Your task to perform on an android device: Open eBay Image 0: 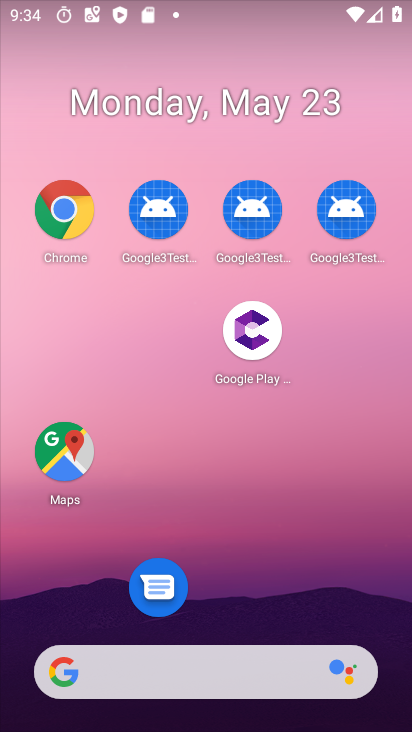
Step 0: click (71, 207)
Your task to perform on an android device: Open eBay Image 1: 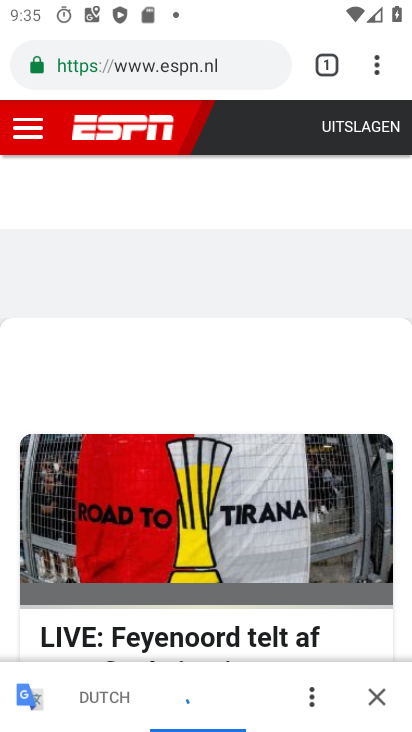
Step 1: click (331, 53)
Your task to perform on an android device: Open eBay Image 2: 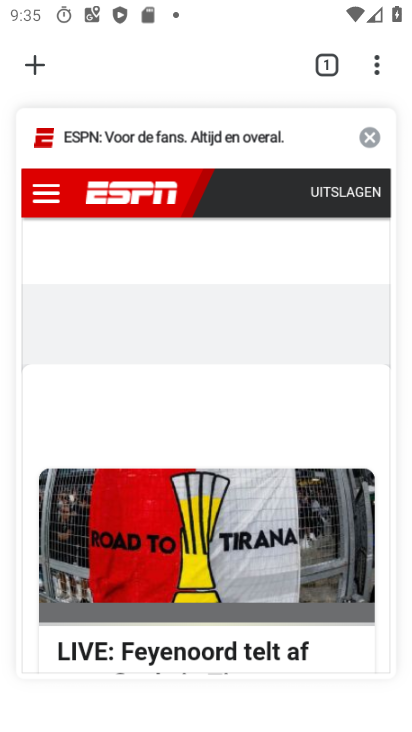
Step 2: click (39, 54)
Your task to perform on an android device: Open eBay Image 3: 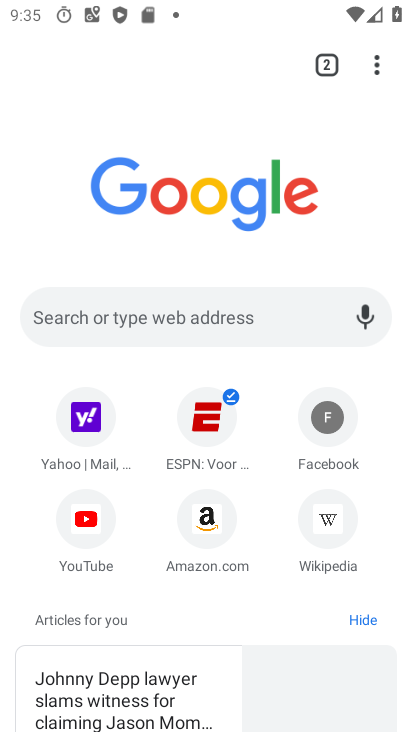
Step 3: click (174, 323)
Your task to perform on an android device: Open eBay Image 4: 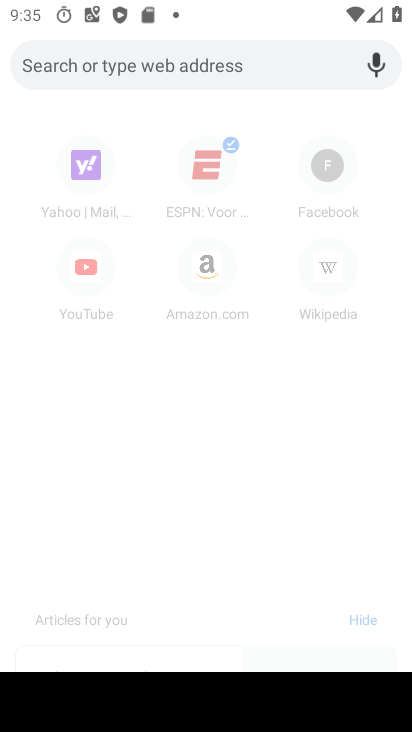
Step 4: type "eBay"
Your task to perform on an android device: Open eBay Image 5: 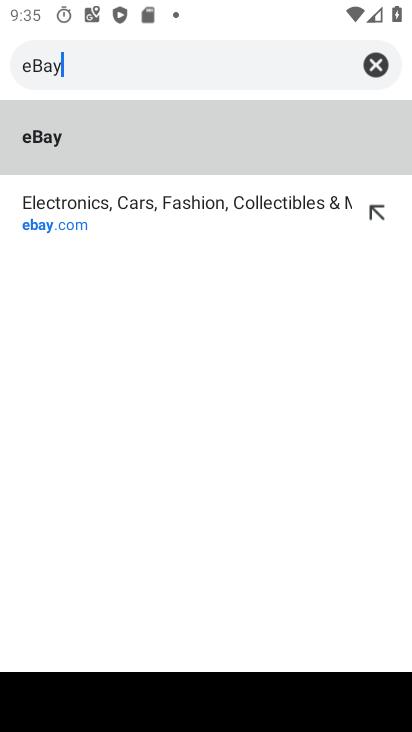
Step 5: click (127, 210)
Your task to perform on an android device: Open eBay Image 6: 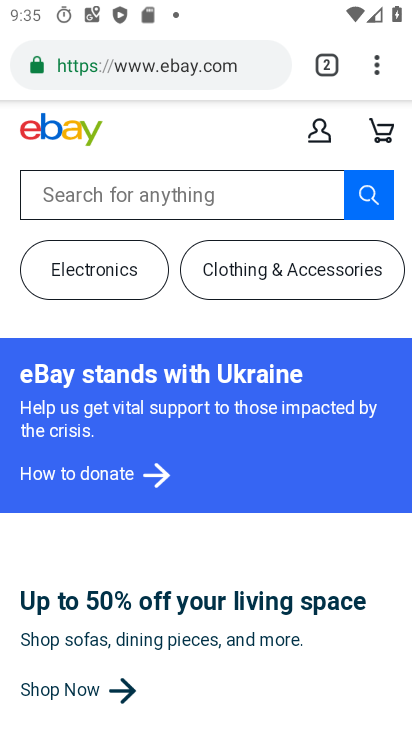
Step 6: task complete